Your task to perform on an android device: Go to Maps Image 0: 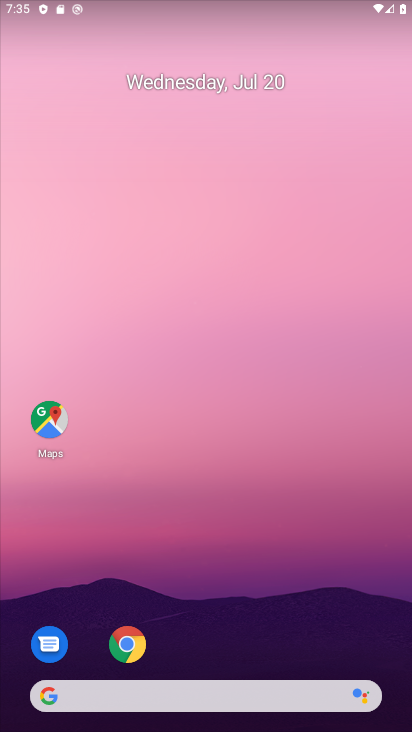
Step 0: click (57, 421)
Your task to perform on an android device: Go to Maps Image 1: 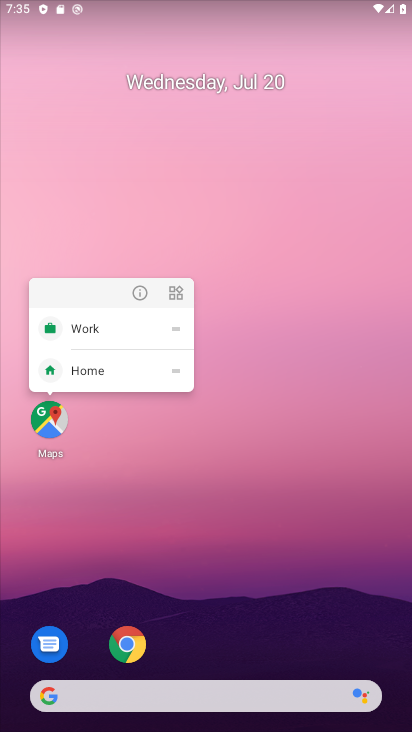
Step 1: click (43, 425)
Your task to perform on an android device: Go to Maps Image 2: 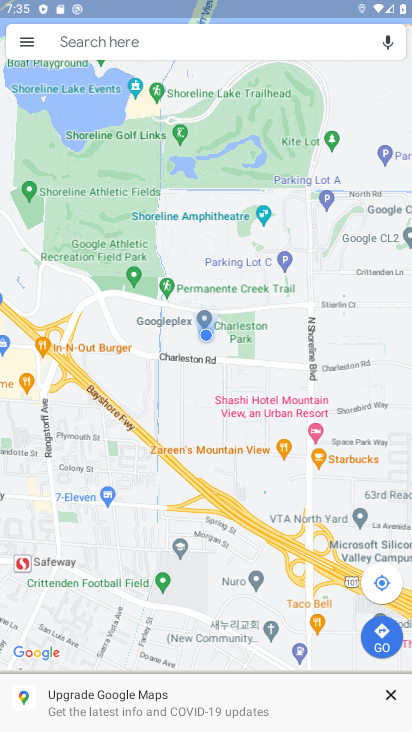
Step 2: task complete